Your task to perform on an android device: change the clock style Image 0: 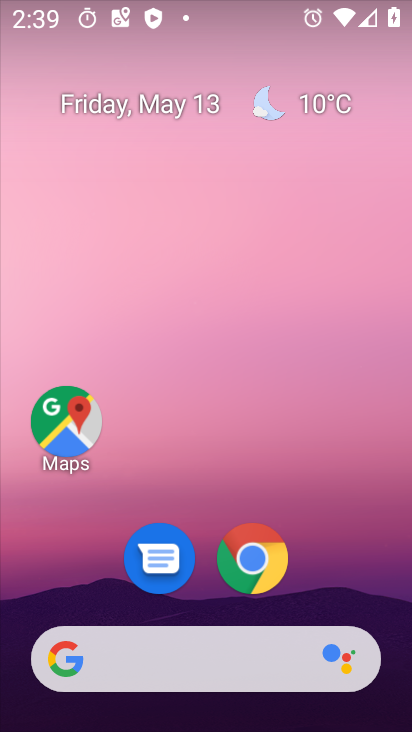
Step 0: drag from (214, 553) to (236, 216)
Your task to perform on an android device: change the clock style Image 1: 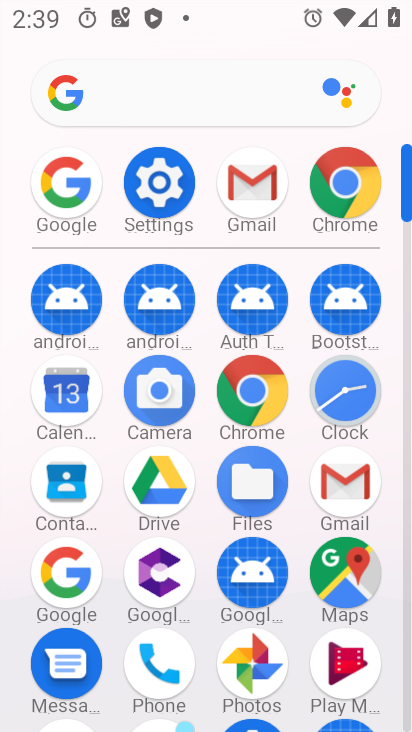
Step 1: click (326, 407)
Your task to perform on an android device: change the clock style Image 2: 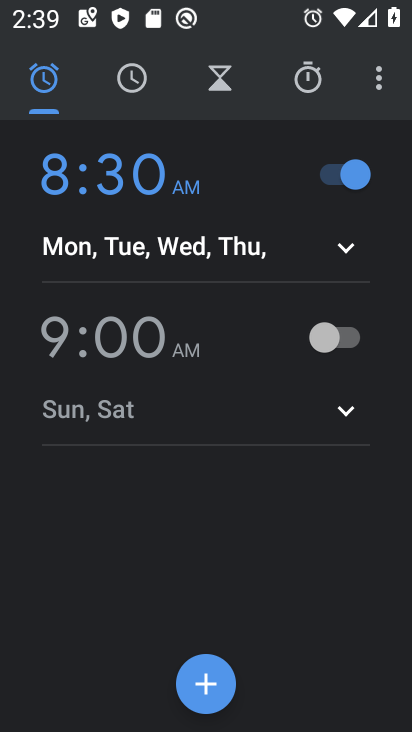
Step 2: click (382, 77)
Your task to perform on an android device: change the clock style Image 3: 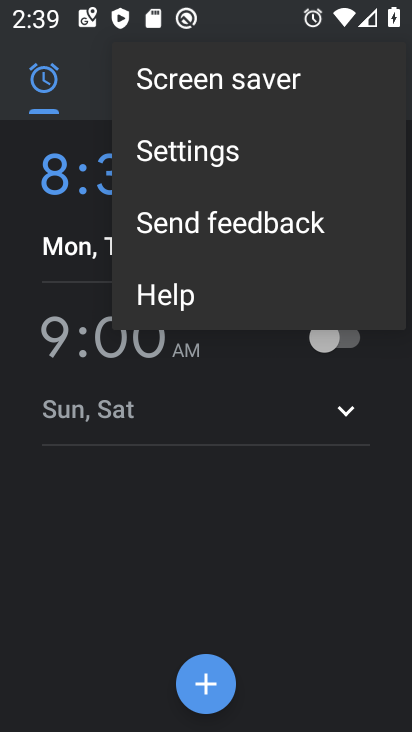
Step 3: click (201, 162)
Your task to perform on an android device: change the clock style Image 4: 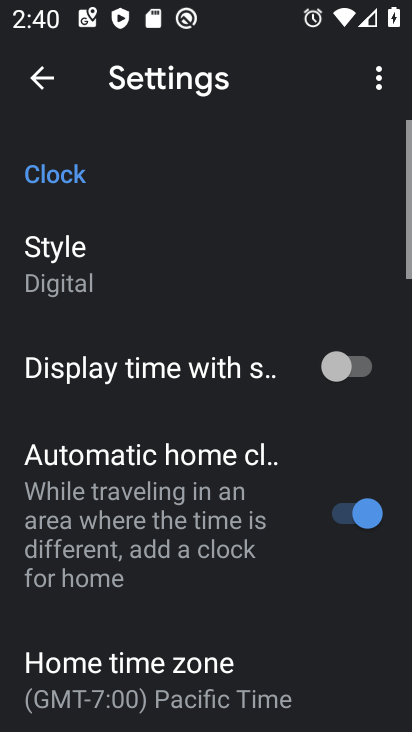
Step 4: click (181, 257)
Your task to perform on an android device: change the clock style Image 5: 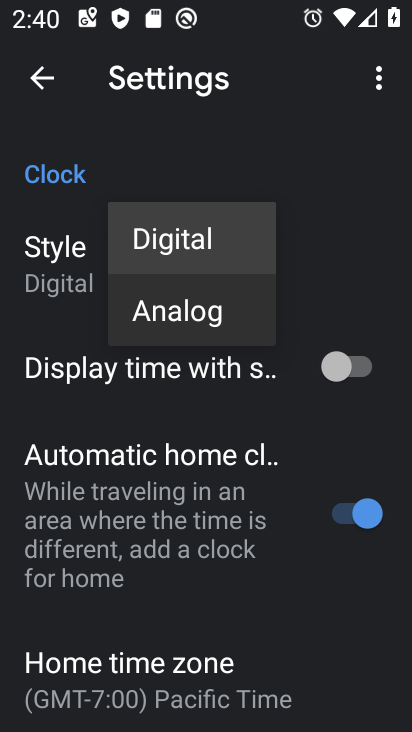
Step 5: task complete